Your task to perform on an android device: Open calendar and show me the second week of next month Image 0: 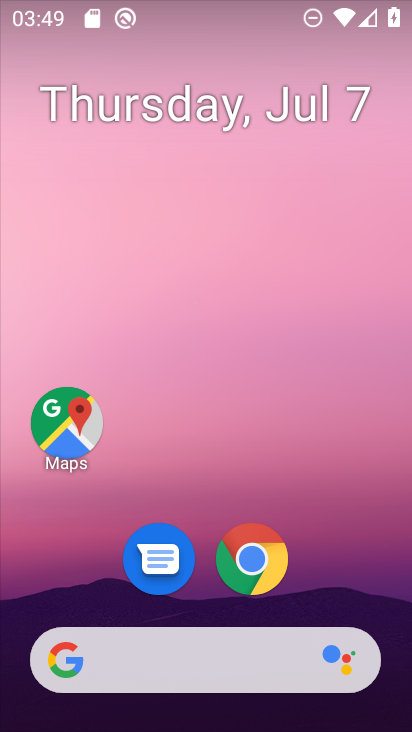
Step 0: drag from (369, 574) to (362, 238)
Your task to perform on an android device: Open calendar and show me the second week of next month Image 1: 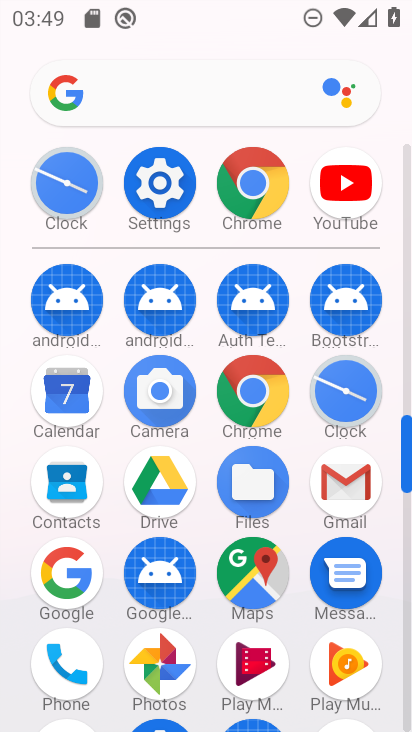
Step 1: click (74, 393)
Your task to perform on an android device: Open calendar and show me the second week of next month Image 2: 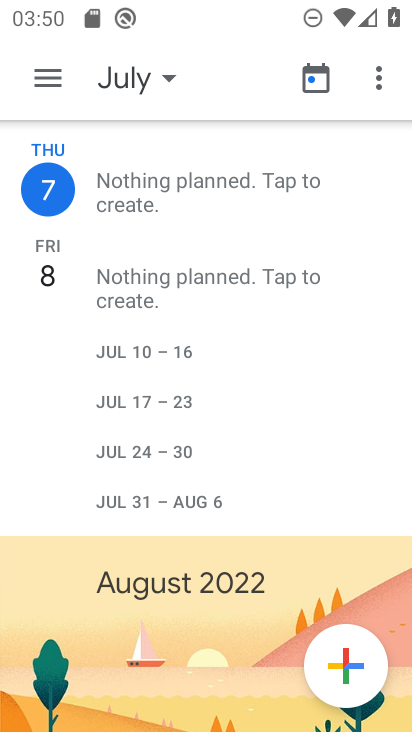
Step 2: click (168, 83)
Your task to perform on an android device: Open calendar and show me the second week of next month Image 3: 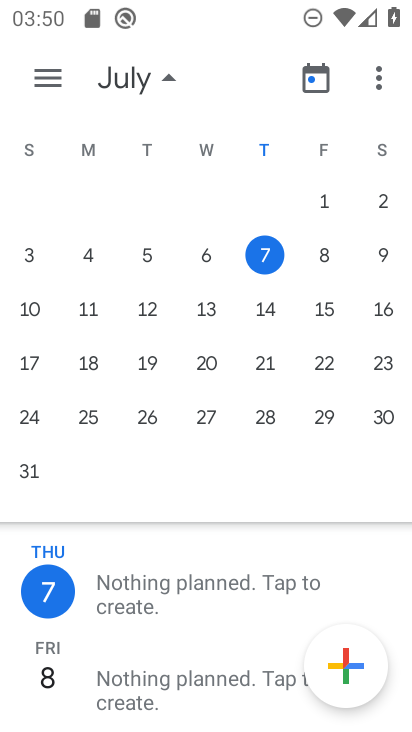
Step 3: drag from (324, 181) to (3, 190)
Your task to perform on an android device: Open calendar and show me the second week of next month Image 4: 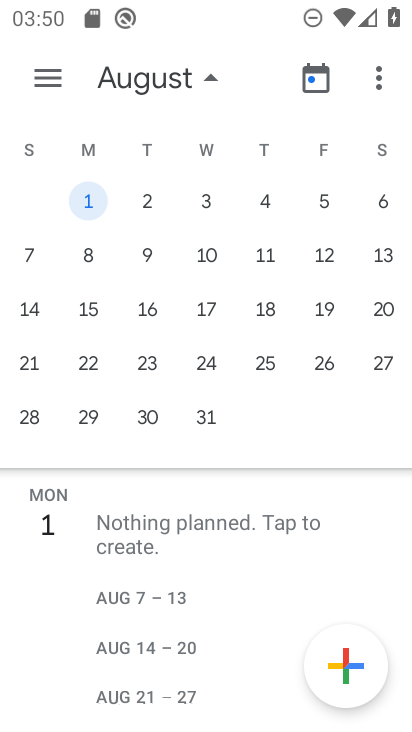
Step 4: click (93, 257)
Your task to perform on an android device: Open calendar and show me the second week of next month Image 5: 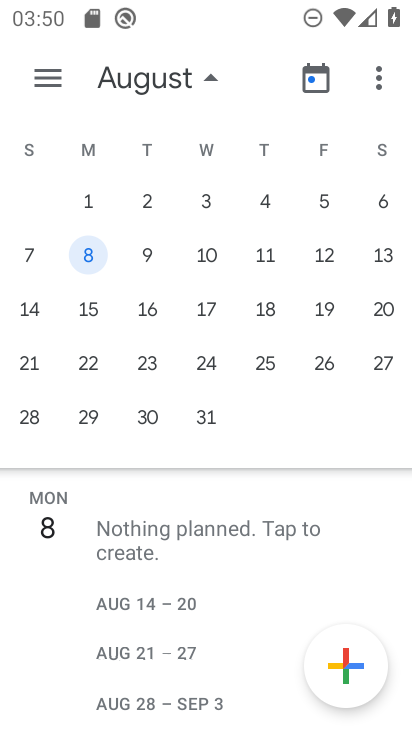
Step 5: task complete